Your task to perform on an android device: Show me popular games on the Play Store Image 0: 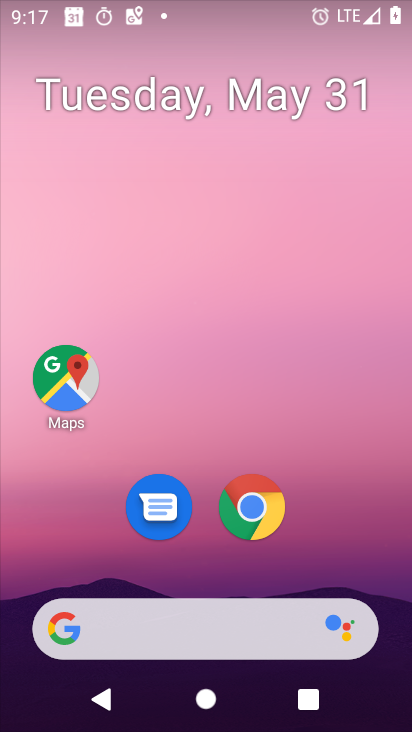
Step 0: drag from (7, 673) to (248, 339)
Your task to perform on an android device: Show me popular games on the Play Store Image 1: 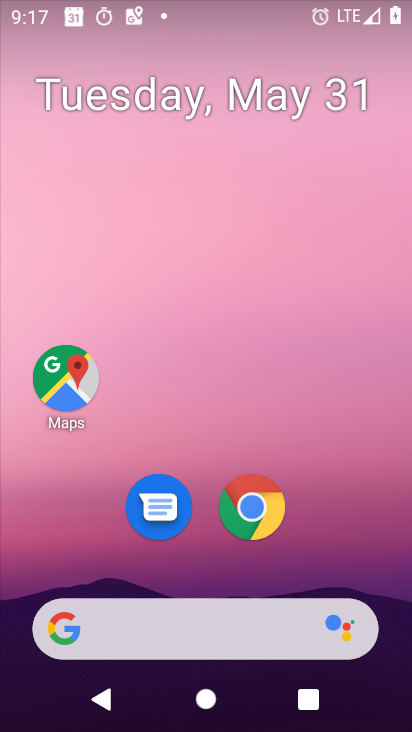
Step 1: task complete